Your task to perform on an android device: turn on improve location accuracy Image 0: 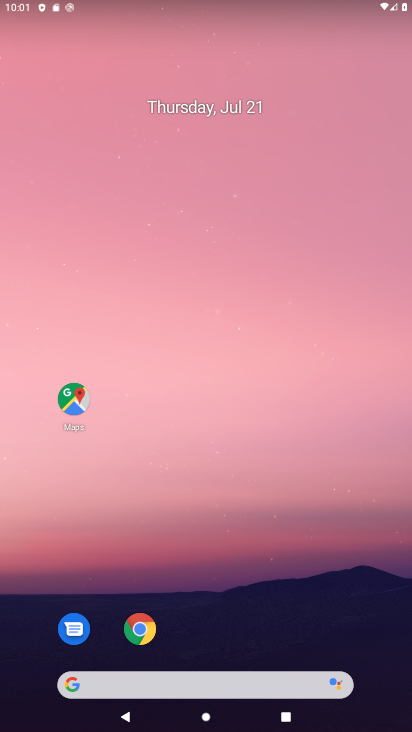
Step 0: press home button
Your task to perform on an android device: turn on improve location accuracy Image 1: 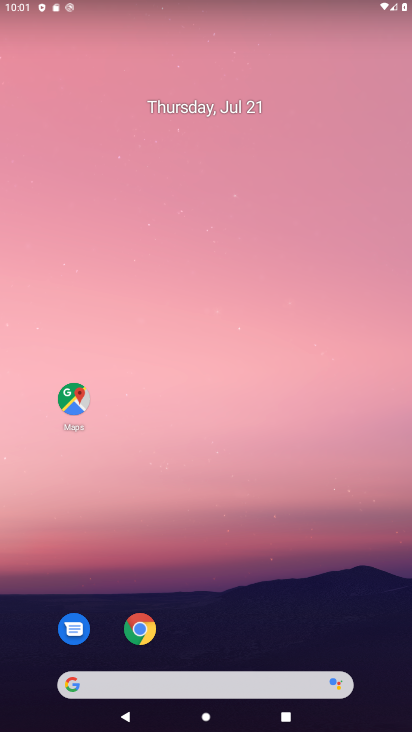
Step 1: drag from (311, 571) to (299, 142)
Your task to perform on an android device: turn on improve location accuracy Image 2: 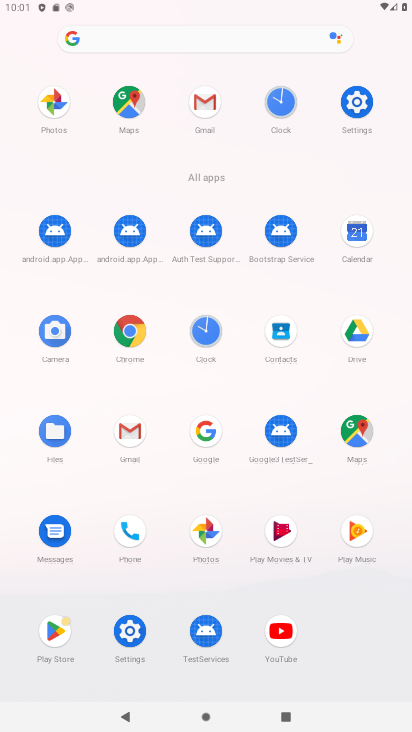
Step 2: click (360, 107)
Your task to perform on an android device: turn on improve location accuracy Image 3: 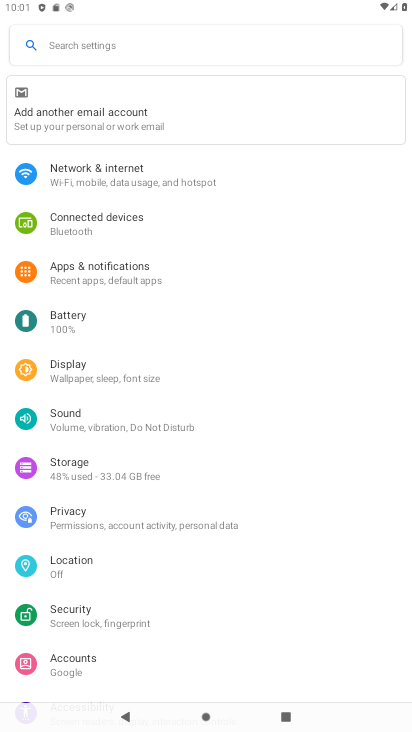
Step 3: click (89, 574)
Your task to perform on an android device: turn on improve location accuracy Image 4: 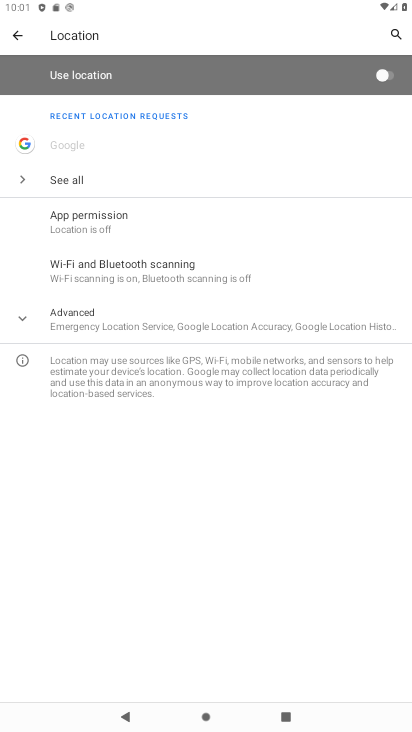
Step 4: click (71, 325)
Your task to perform on an android device: turn on improve location accuracy Image 5: 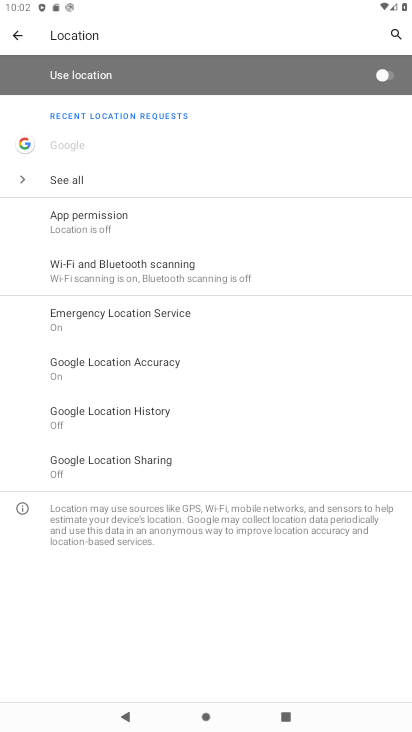
Step 5: task complete